Your task to perform on an android device: change the clock display to show seconds Image 0: 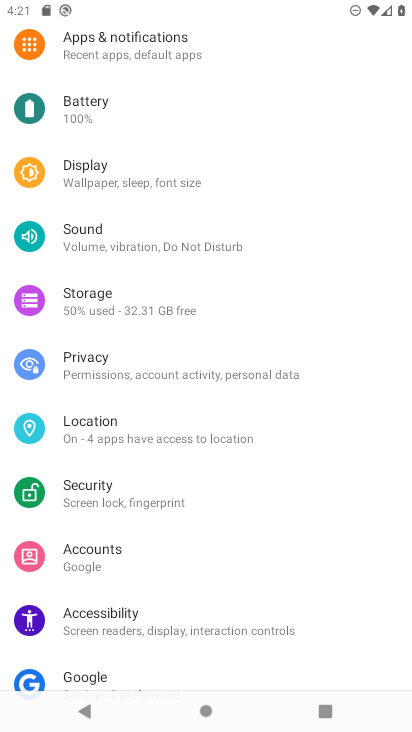
Step 0: press home button
Your task to perform on an android device: change the clock display to show seconds Image 1: 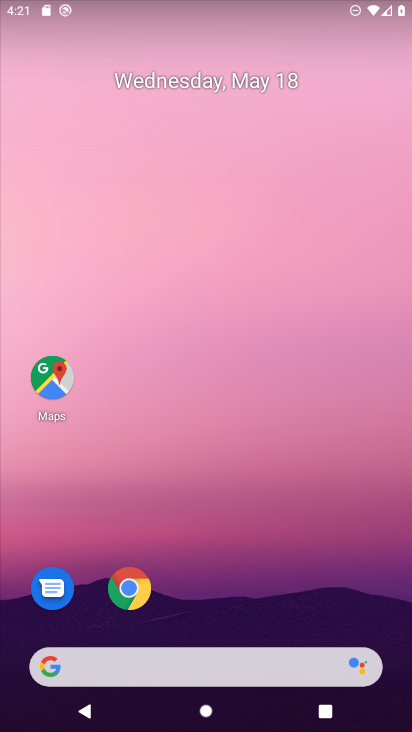
Step 1: drag from (237, 562) to (271, 150)
Your task to perform on an android device: change the clock display to show seconds Image 2: 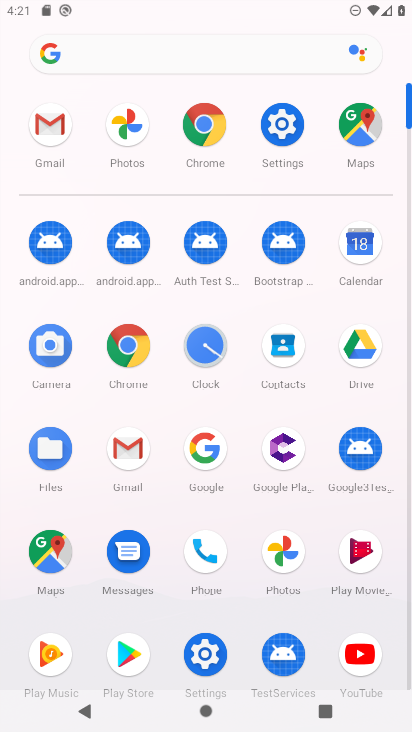
Step 2: click (211, 334)
Your task to perform on an android device: change the clock display to show seconds Image 3: 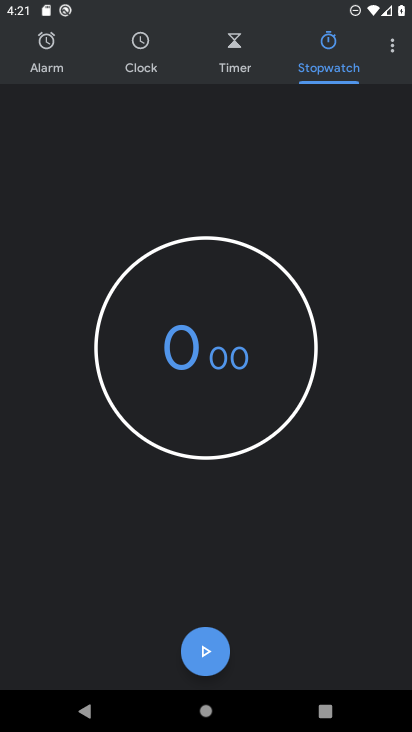
Step 3: click (388, 51)
Your task to perform on an android device: change the clock display to show seconds Image 4: 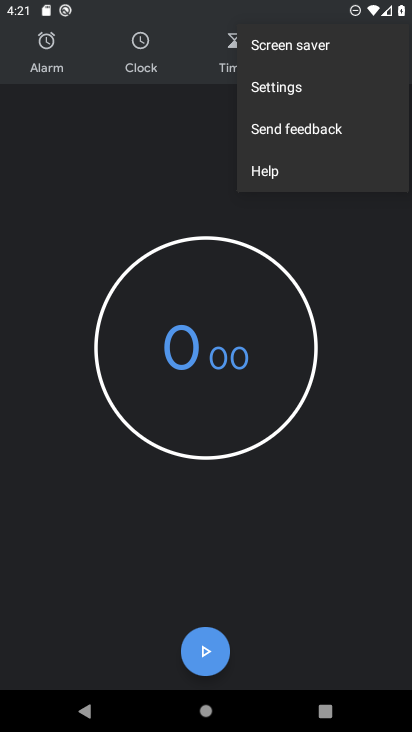
Step 4: click (301, 94)
Your task to perform on an android device: change the clock display to show seconds Image 5: 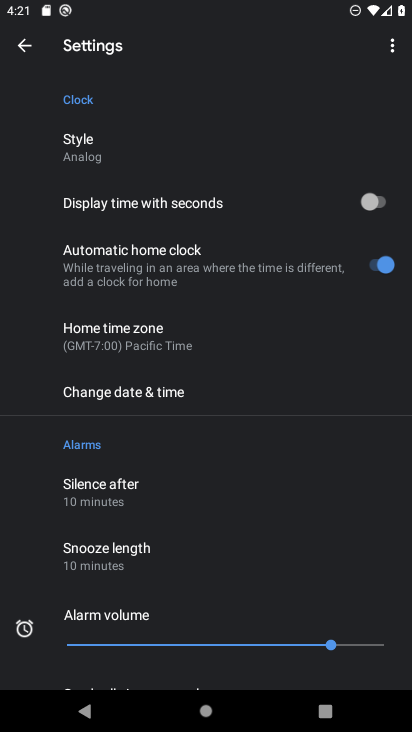
Step 5: task complete